Your task to perform on an android device: Go to internet settings Image 0: 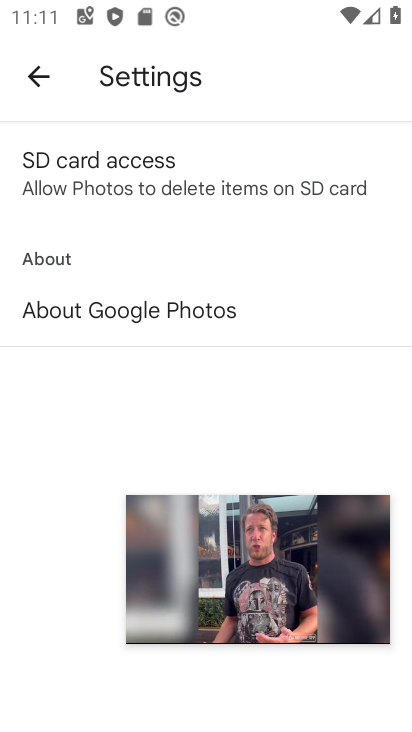
Step 0: click (317, 510)
Your task to perform on an android device: Go to internet settings Image 1: 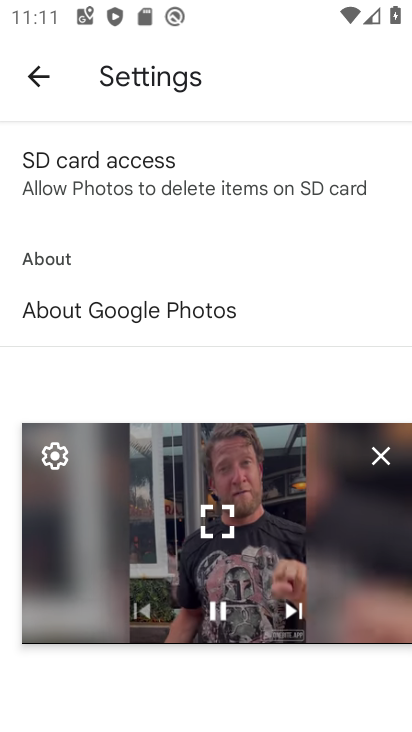
Step 1: click (393, 452)
Your task to perform on an android device: Go to internet settings Image 2: 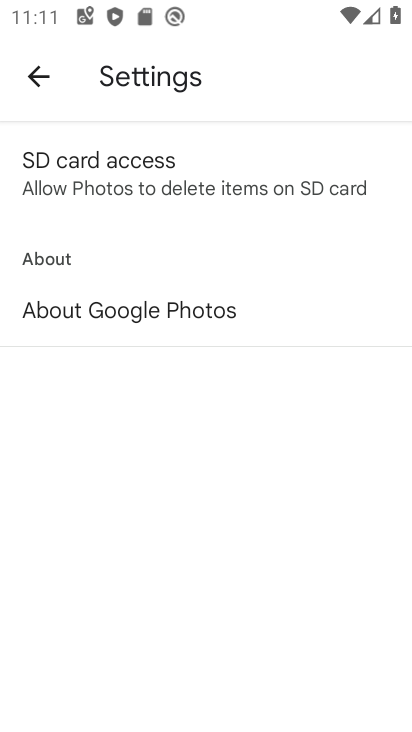
Step 2: press home button
Your task to perform on an android device: Go to internet settings Image 3: 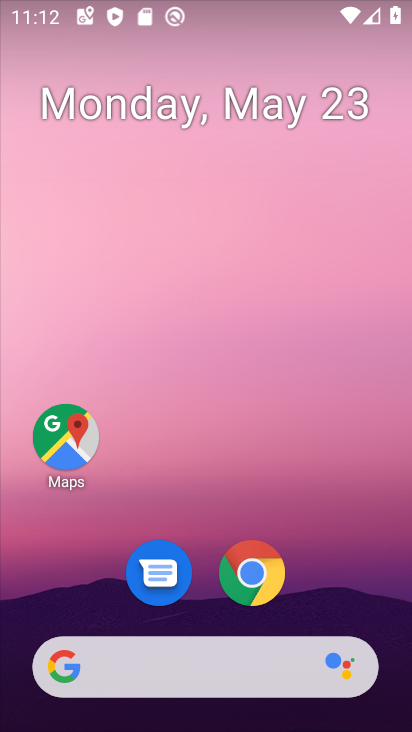
Step 3: drag from (346, 610) to (359, 276)
Your task to perform on an android device: Go to internet settings Image 4: 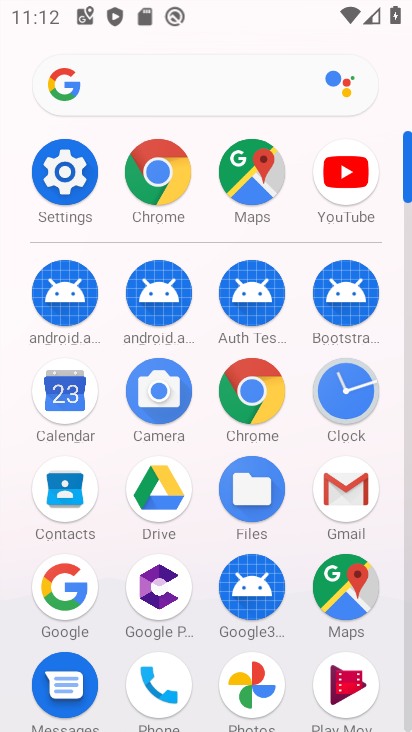
Step 4: click (92, 199)
Your task to perform on an android device: Go to internet settings Image 5: 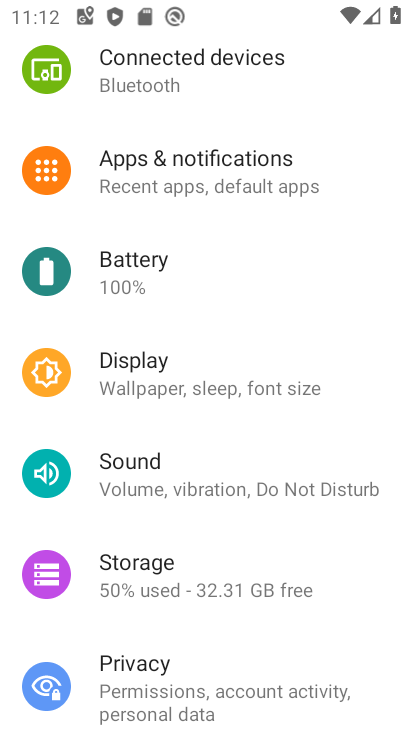
Step 5: drag from (196, 233) to (192, 398)
Your task to perform on an android device: Go to internet settings Image 6: 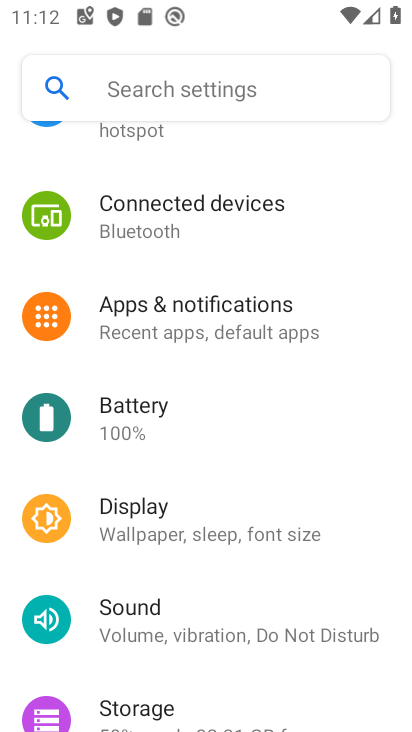
Step 6: drag from (204, 244) to (222, 550)
Your task to perform on an android device: Go to internet settings Image 7: 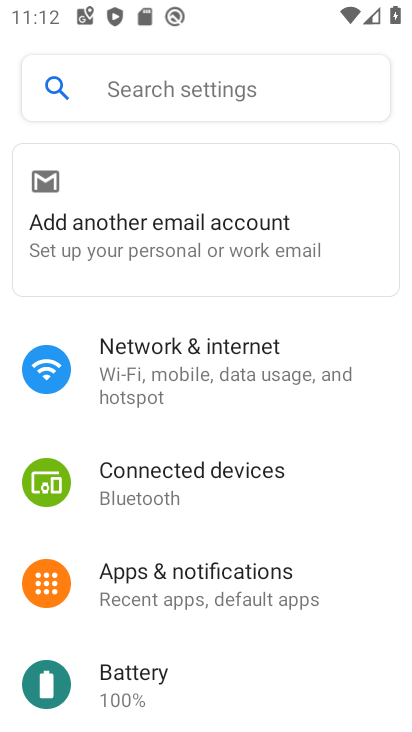
Step 7: click (189, 384)
Your task to perform on an android device: Go to internet settings Image 8: 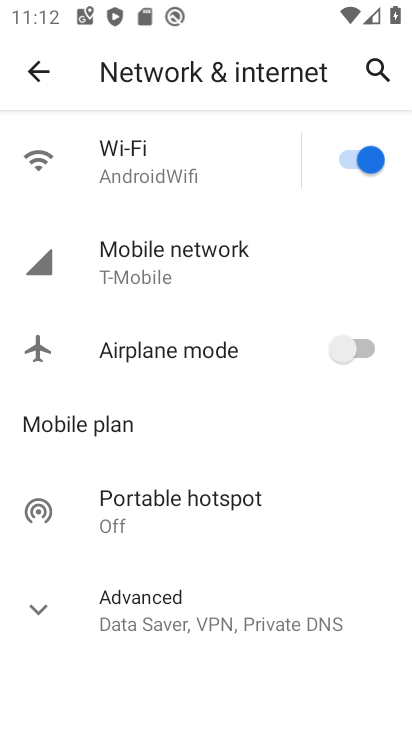
Step 8: click (218, 276)
Your task to perform on an android device: Go to internet settings Image 9: 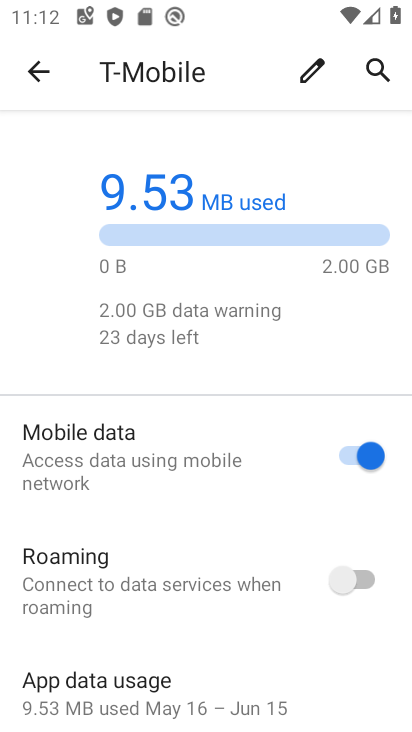
Step 9: task complete